Your task to perform on an android device: turn off location Image 0: 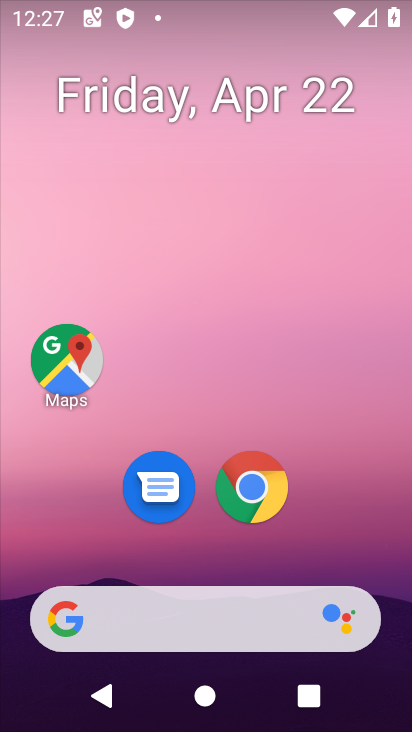
Step 0: click (72, 377)
Your task to perform on an android device: turn off location Image 1: 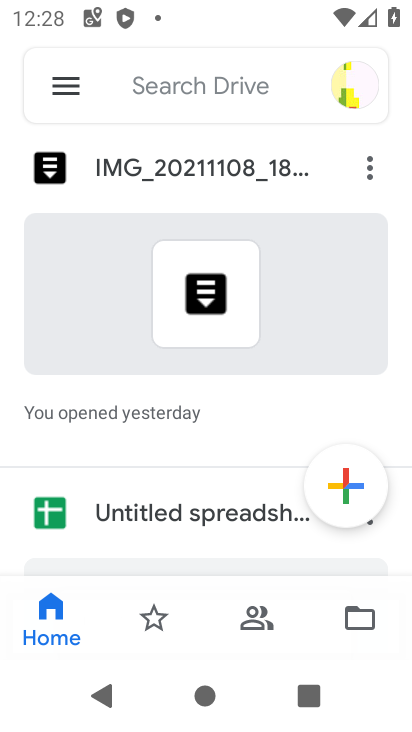
Step 1: press home button
Your task to perform on an android device: turn off location Image 2: 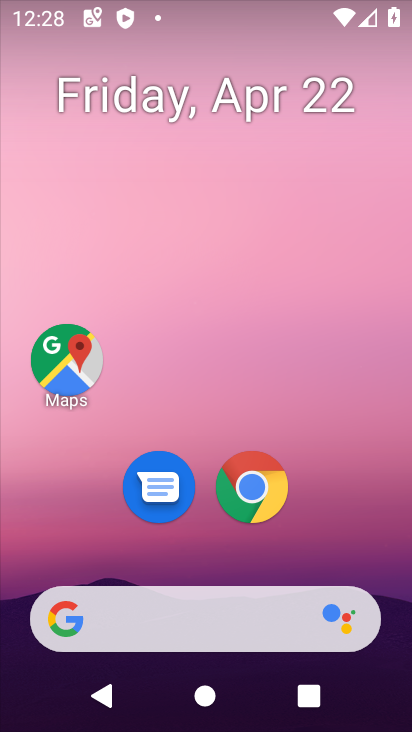
Step 2: drag from (209, 557) to (207, 96)
Your task to perform on an android device: turn off location Image 3: 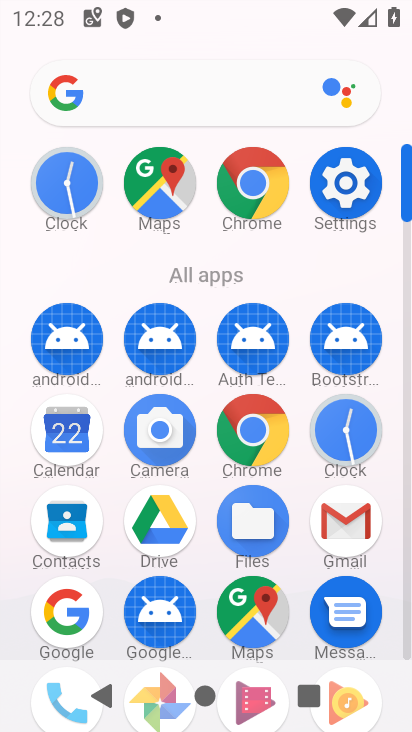
Step 3: click (341, 172)
Your task to perform on an android device: turn off location Image 4: 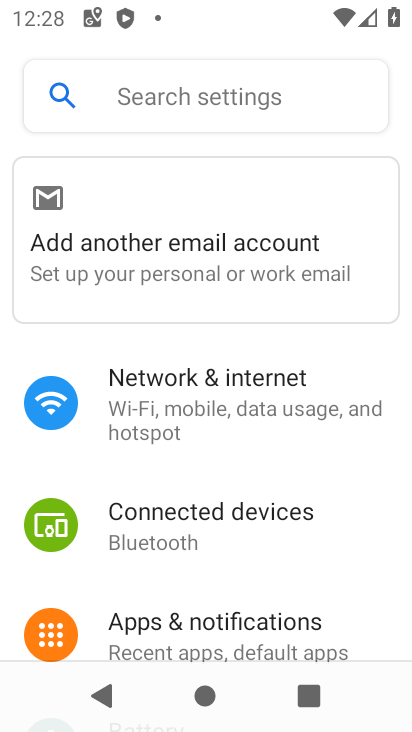
Step 4: drag from (232, 549) to (239, 207)
Your task to perform on an android device: turn off location Image 5: 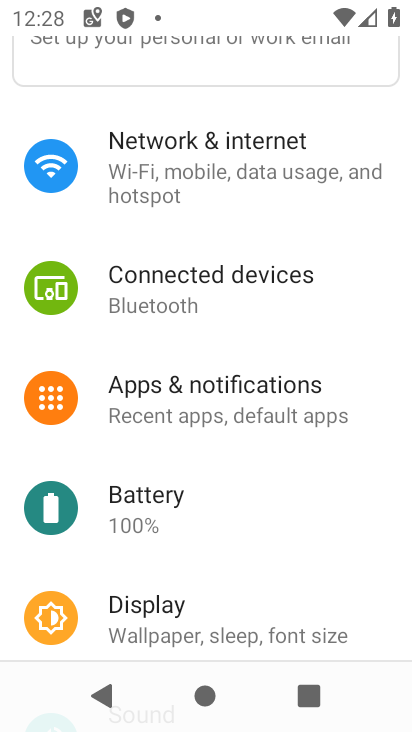
Step 5: drag from (233, 513) to (242, 240)
Your task to perform on an android device: turn off location Image 6: 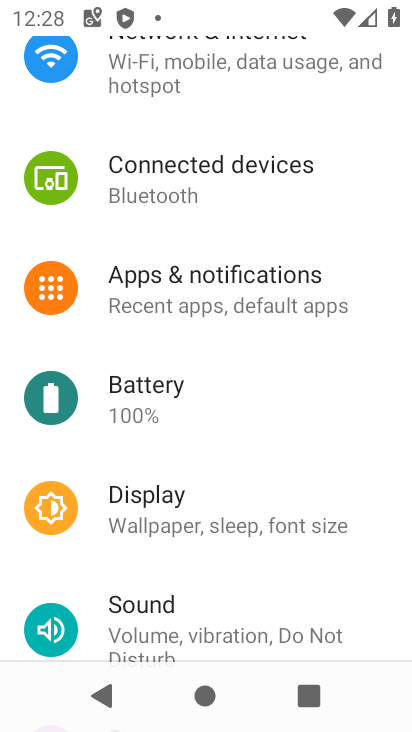
Step 6: drag from (194, 564) to (199, 277)
Your task to perform on an android device: turn off location Image 7: 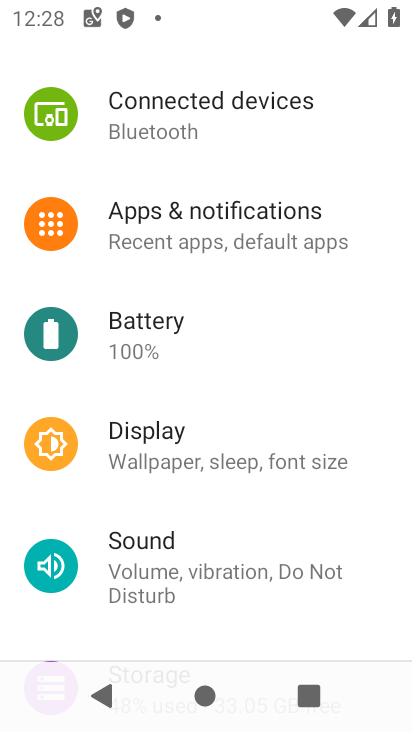
Step 7: drag from (222, 547) to (236, 301)
Your task to perform on an android device: turn off location Image 8: 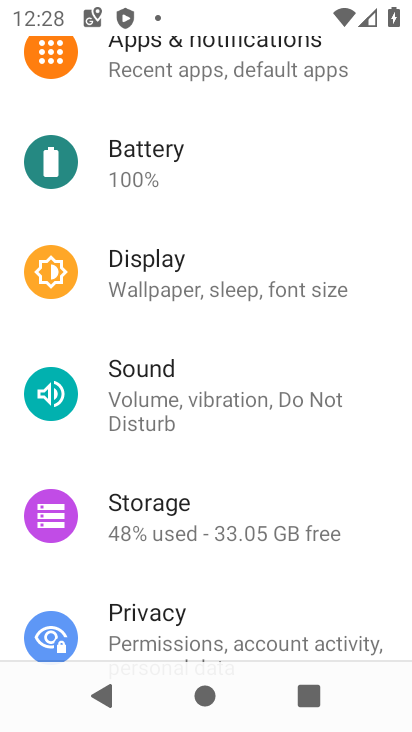
Step 8: drag from (228, 506) to (242, 276)
Your task to perform on an android device: turn off location Image 9: 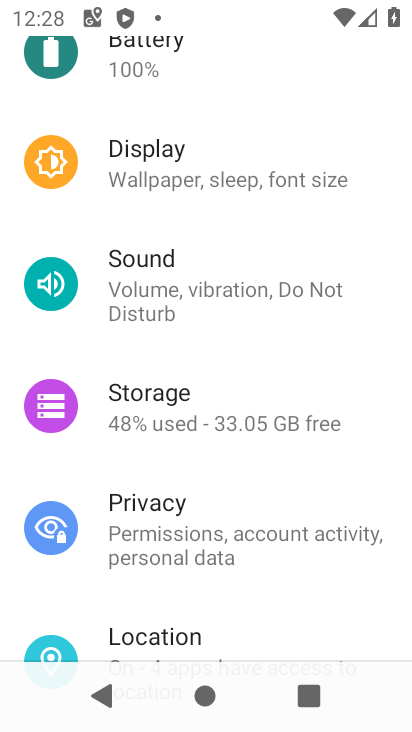
Step 9: drag from (245, 571) to (245, 435)
Your task to perform on an android device: turn off location Image 10: 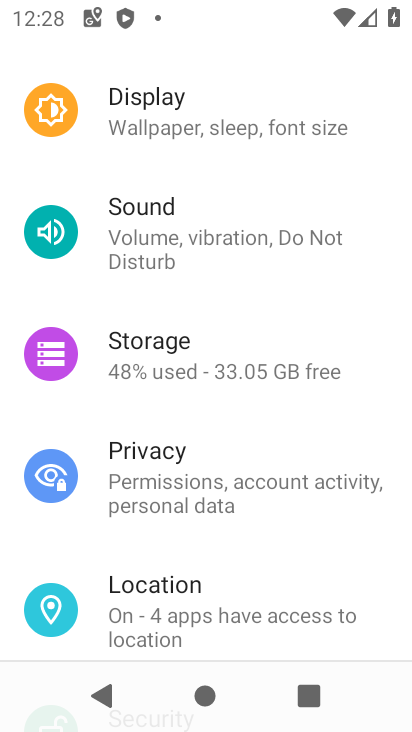
Step 10: click (188, 576)
Your task to perform on an android device: turn off location Image 11: 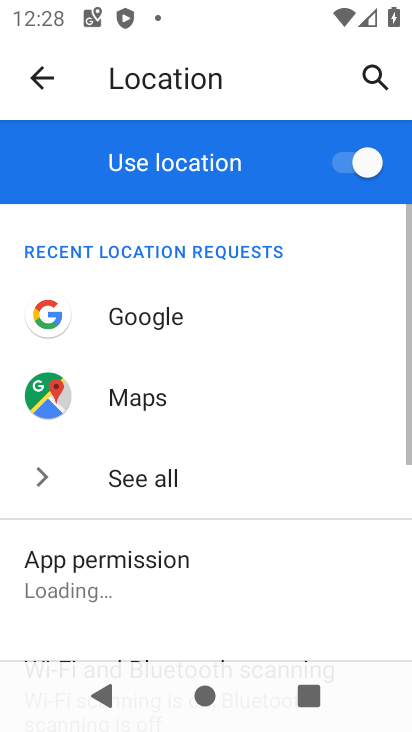
Step 11: click (340, 161)
Your task to perform on an android device: turn off location Image 12: 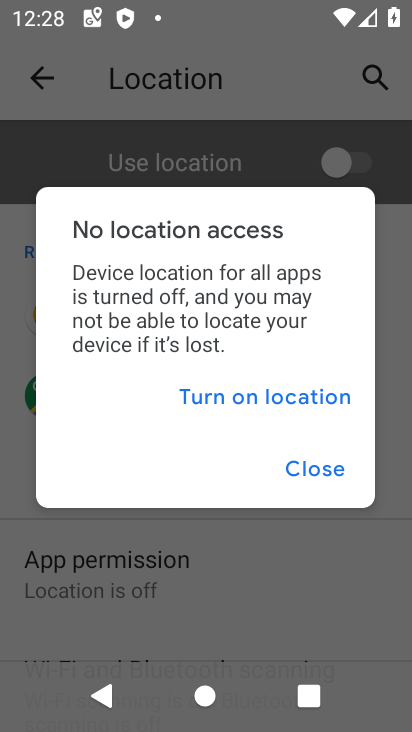
Step 12: task complete